Your task to perform on an android device: refresh tabs in the chrome app Image 0: 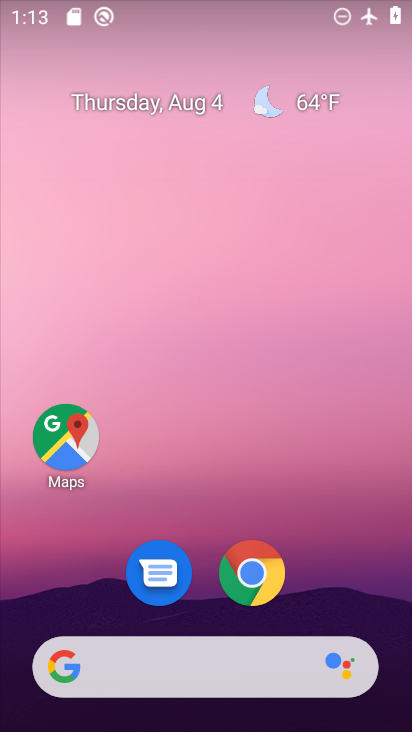
Step 0: drag from (365, 570) to (263, 53)
Your task to perform on an android device: refresh tabs in the chrome app Image 1: 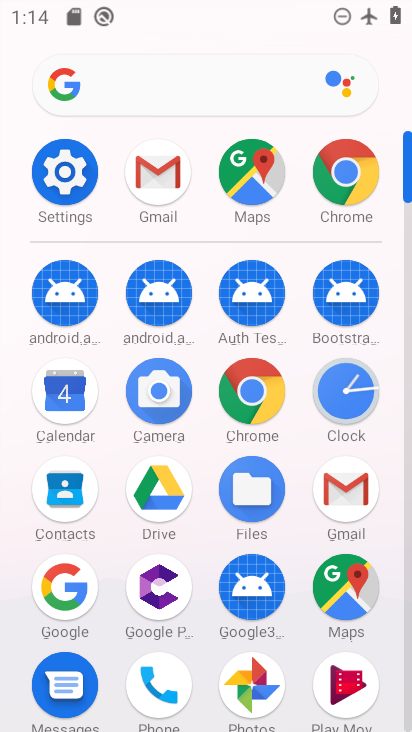
Step 1: click (256, 394)
Your task to perform on an android device: refresh tabs in the chrome app Image 2: 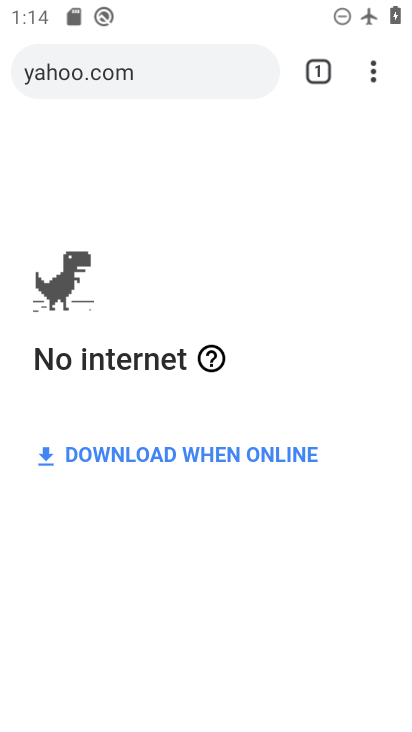
Step 2: click (373, 76)
Your task to perform on an android device: refresh tabs in the chrome app Image 3: 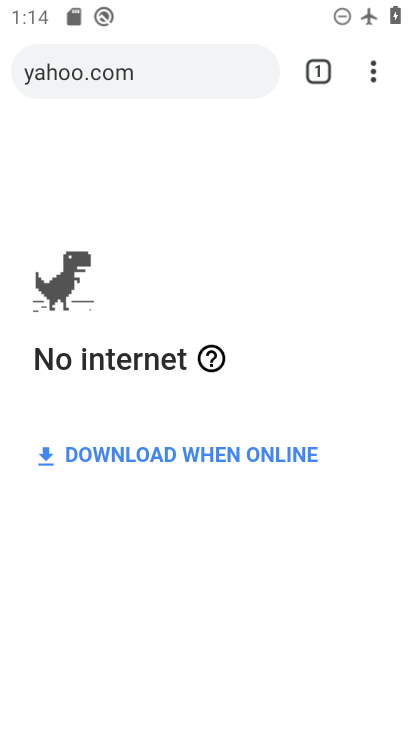
Step 3: task complete